Your task to perform on an android device: Toggle the flashlight Image 0: 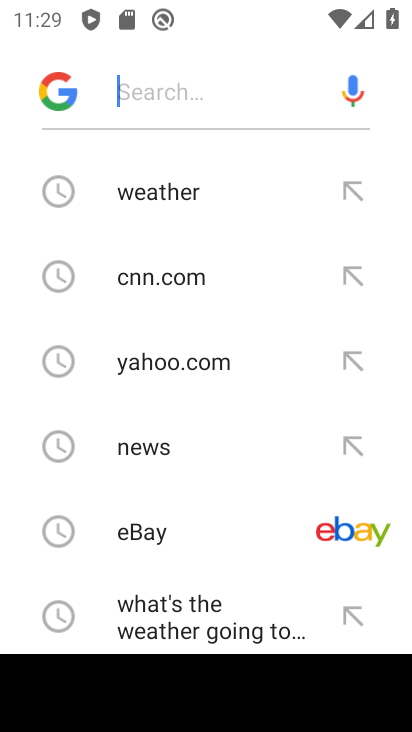
Step 0: press home button
Your task to perform on an android device: Toggle the flashlight Image 1: 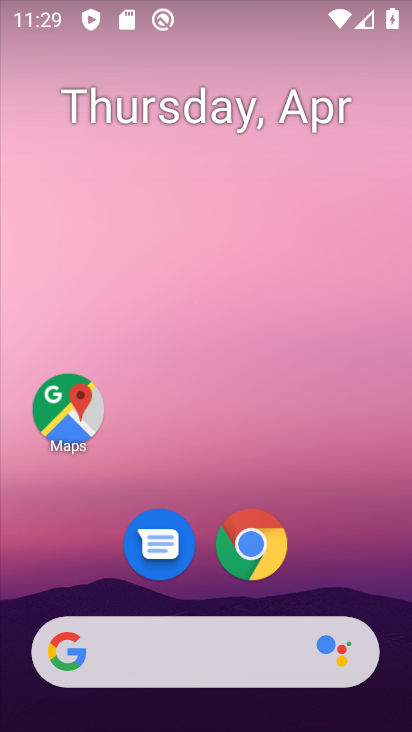
Step 1: task complete